Your task to perform on an android device: Clear the shopping cart on walmart. Search for macbook air on walmart, select the first entry, and add it to the cart. Image 0: 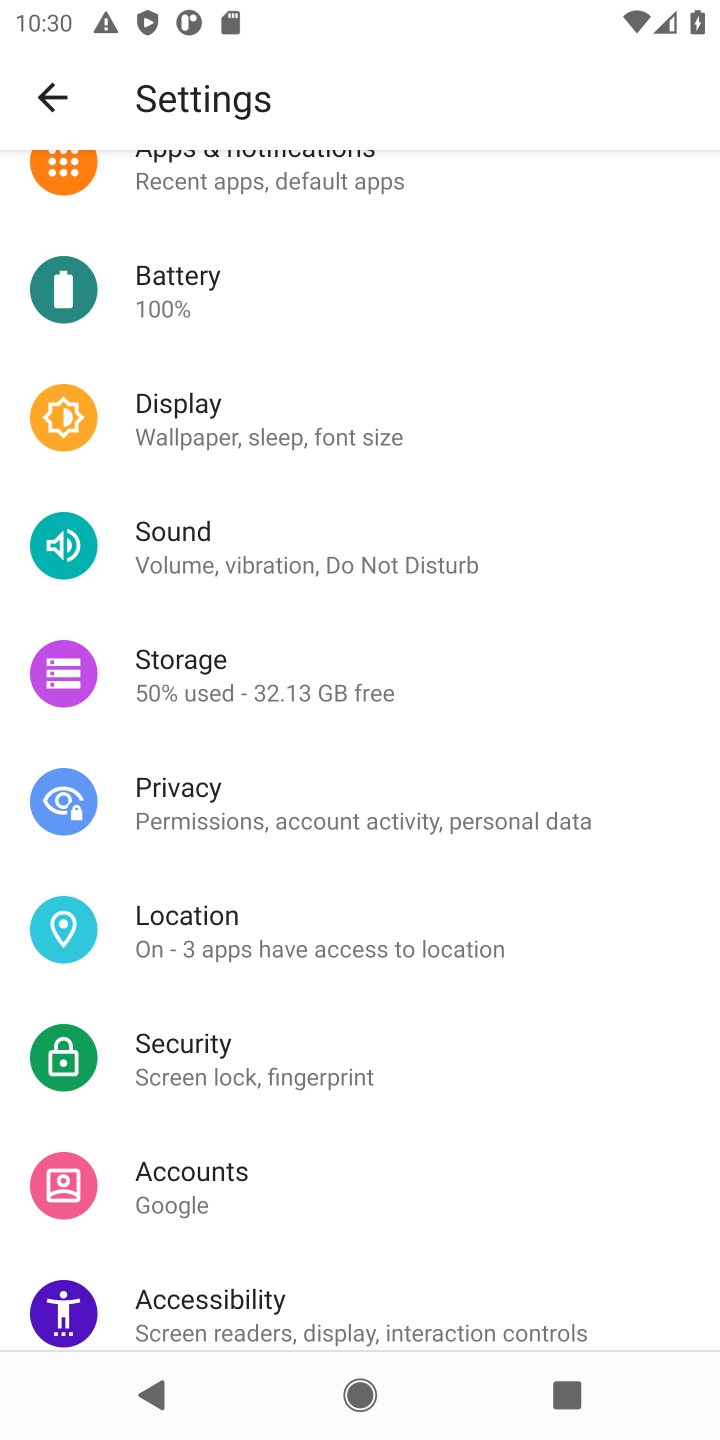
Step 0: press home button
Your task to perform on an android device: Clear the shopping cart on walmart. Search for macbook air on walmart, select the first entry, and add it to the cart. Image 1: 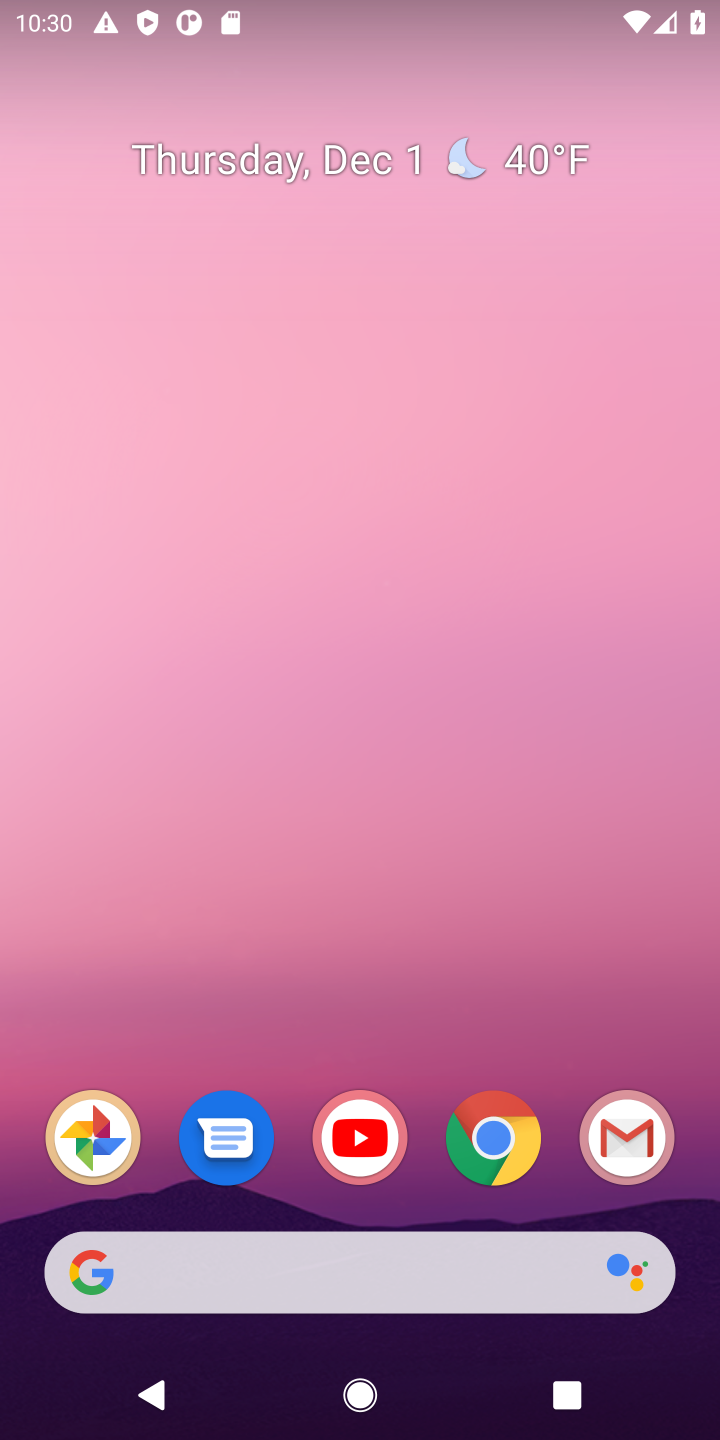
Step 1: drag from (399, 1241) to (384, 324)
Your task to perform on an android device: Clear the shopping cart on walmart. Search for macbook air on walmart, select the first entry, and add it to the cart. Image 2: 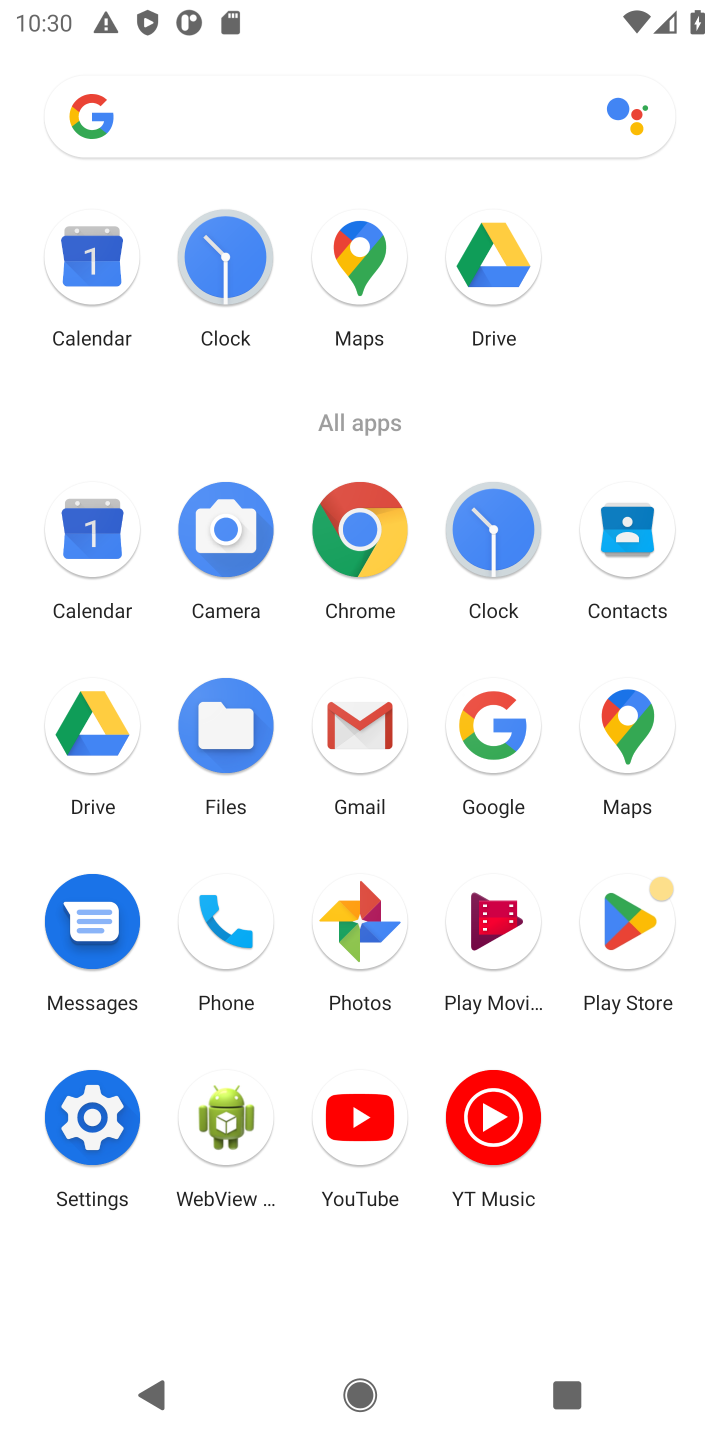
Step 2: click (480, 746)
Your task to perform on an android device: Clear the shopping cart on walmart. Search for macbook air on walmart, select the first entry, and add it to the cart. Image 3: 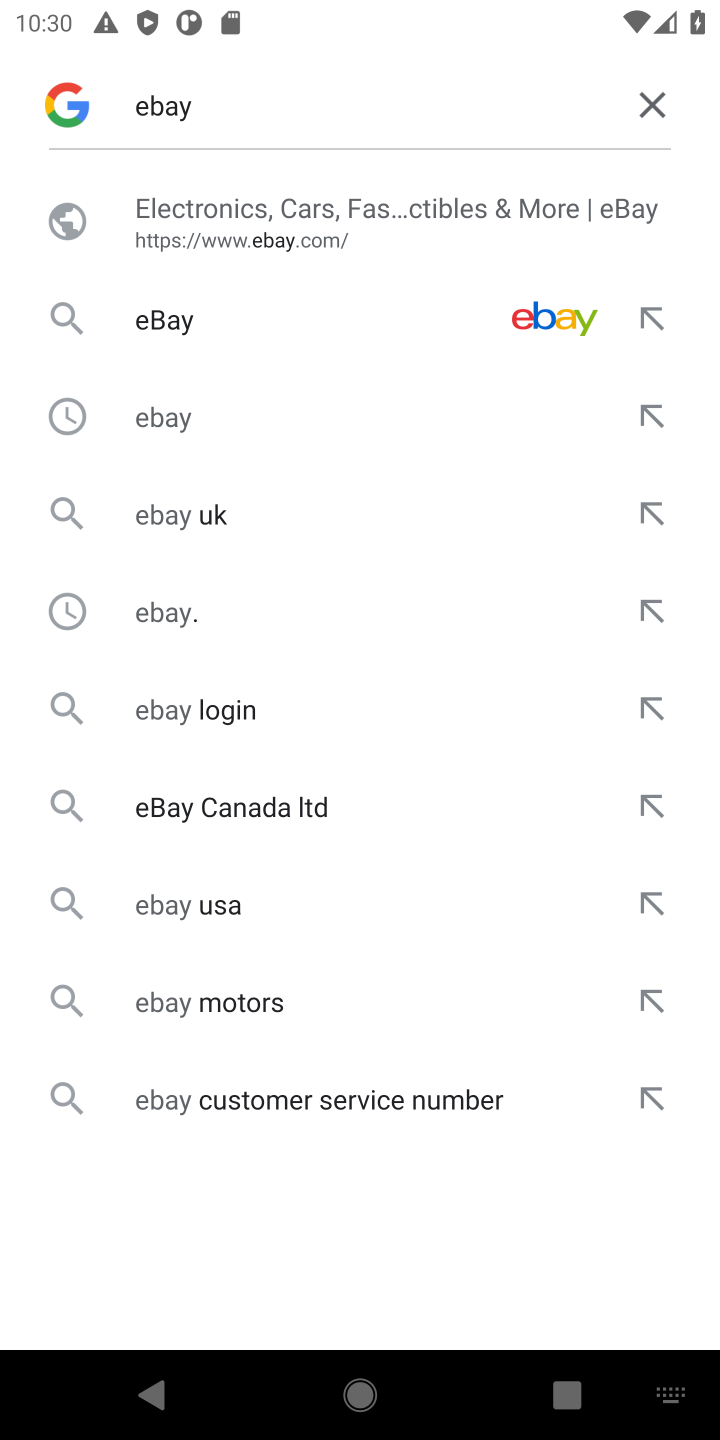
Step 3: click (655, 92)
Your task to perform on an android device: Clear the shopping cart on walmart. Search for macbook air on walmart, select the first entry, and add it to the cart. Image 4: 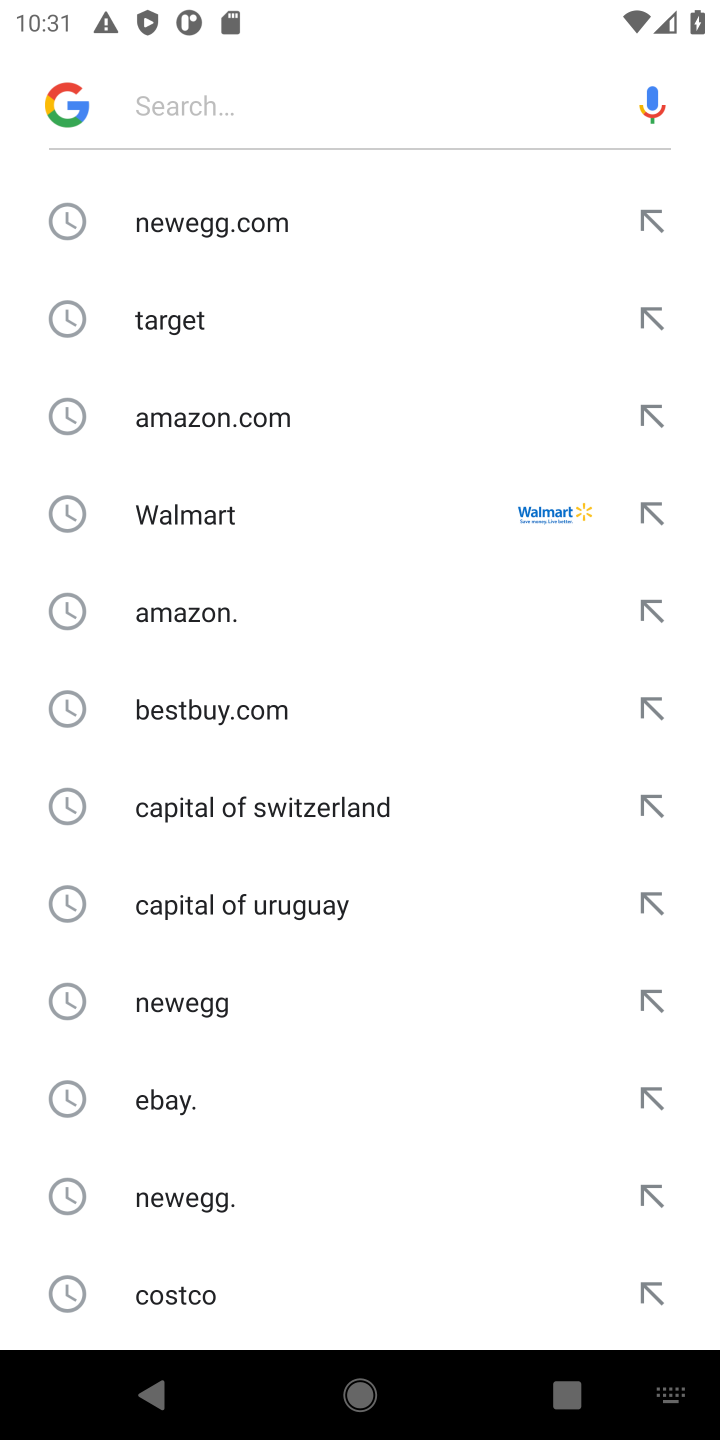
Step 4: type "walmart"
Your task to perform on an android device: Clear the shopping cart on walmart. Search for macbook air on walmart, select the first entry, and add it to the cart. Image 5: 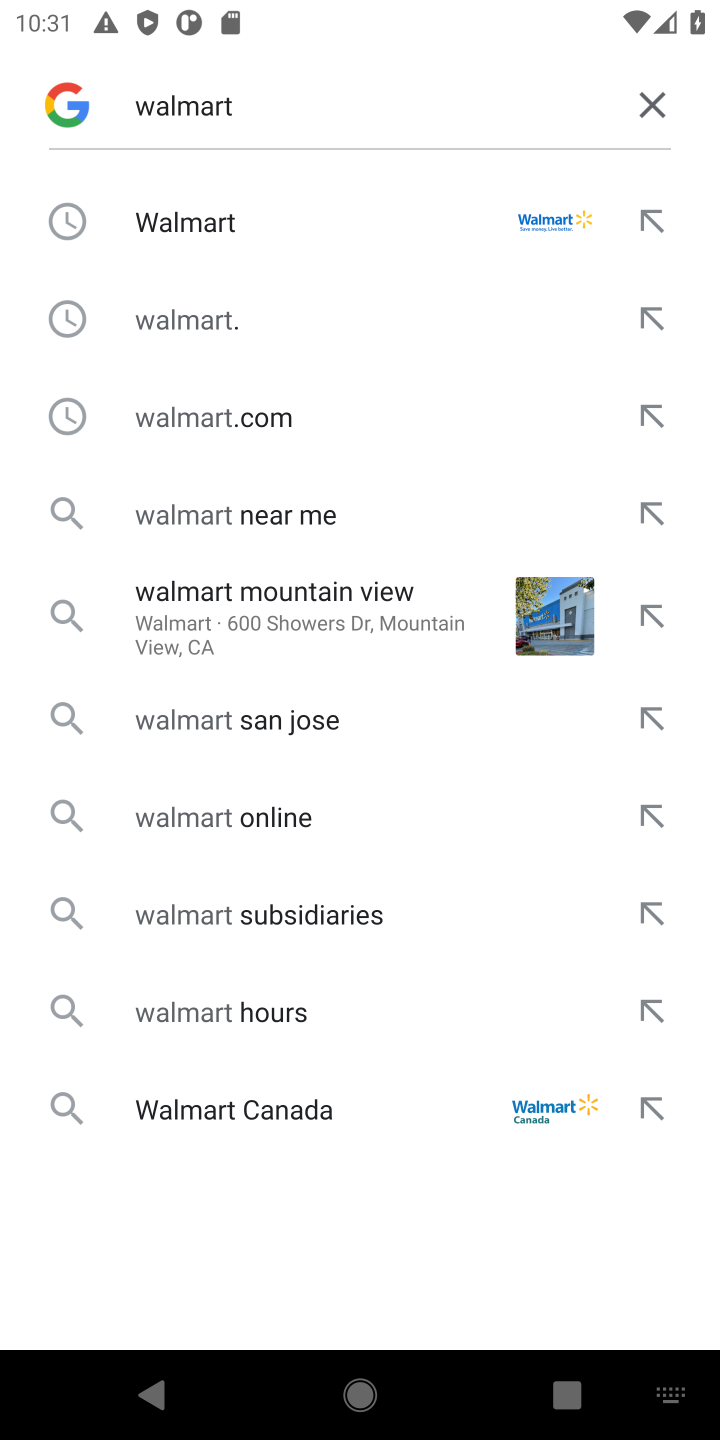
Step 5: click (289, 222)
Your task to perform on an android device: Clear the shopping cart on walmart. Search for macbook air on walmart, select the first entry, and add it to the cart. Image 6: 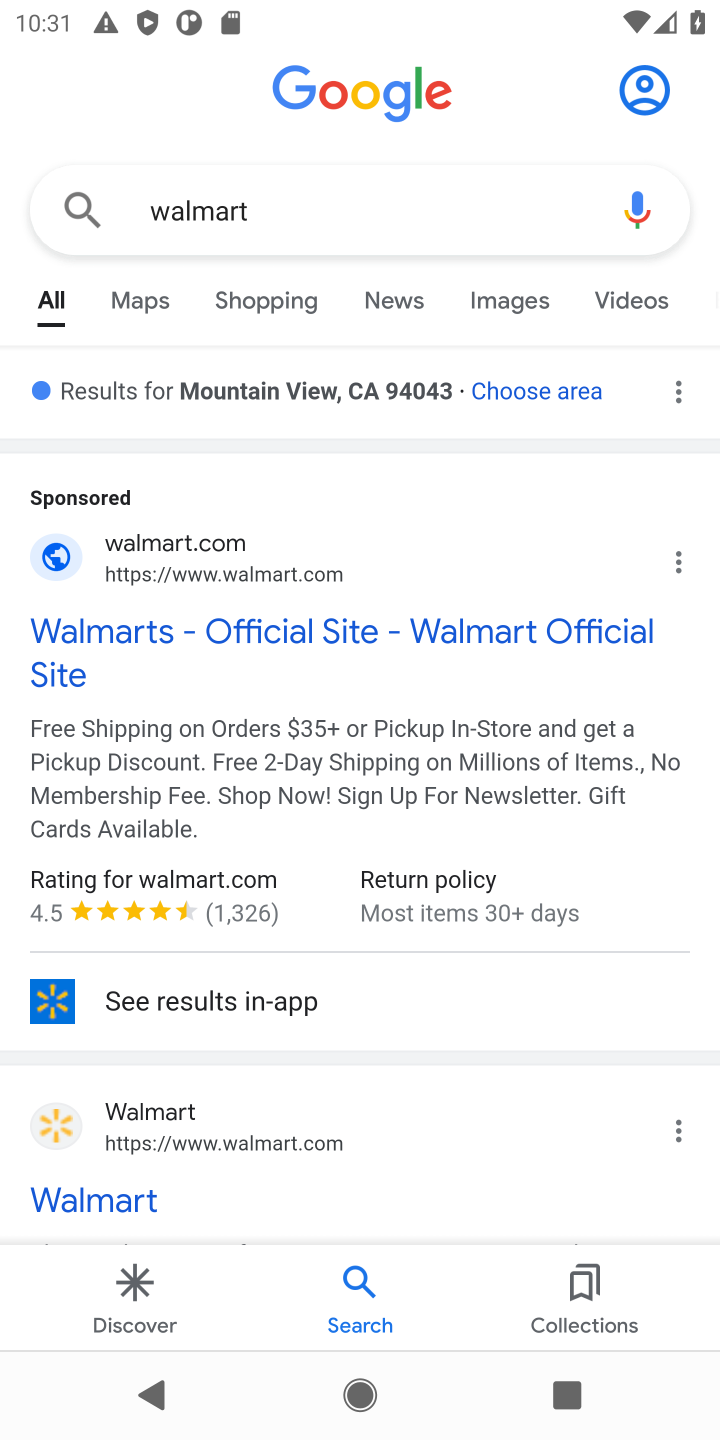
Step 6: click (195, 624)
Your task to perform on an android device: Clear the shopping cart on walmart. Search for macbook air on walmart, select the first entry, and add it to the cart. Image 7: 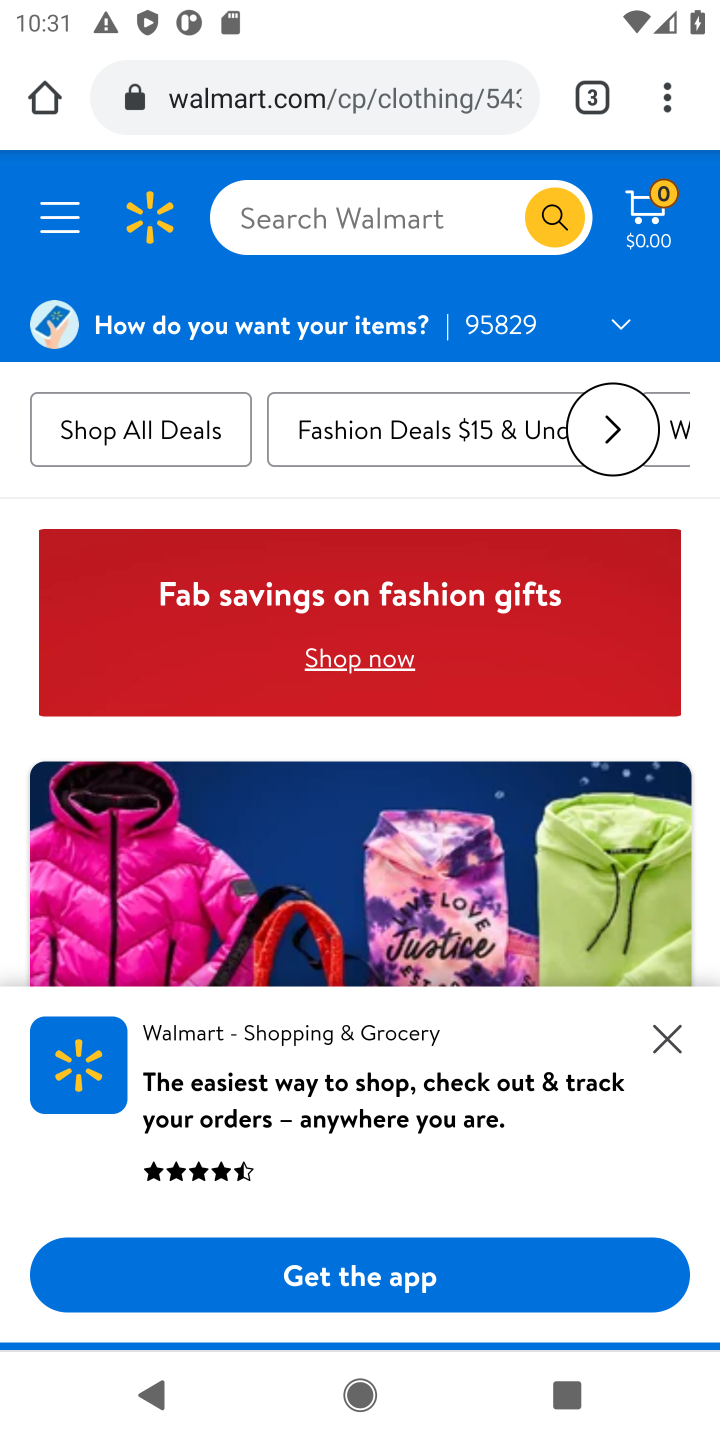
Step 7: click (657, 1032)
Your task to perform on an android device: Clear the shopping cart on walmart. Search for macbook air on walmart, select the first entry, and add it to the cart. Image 8: 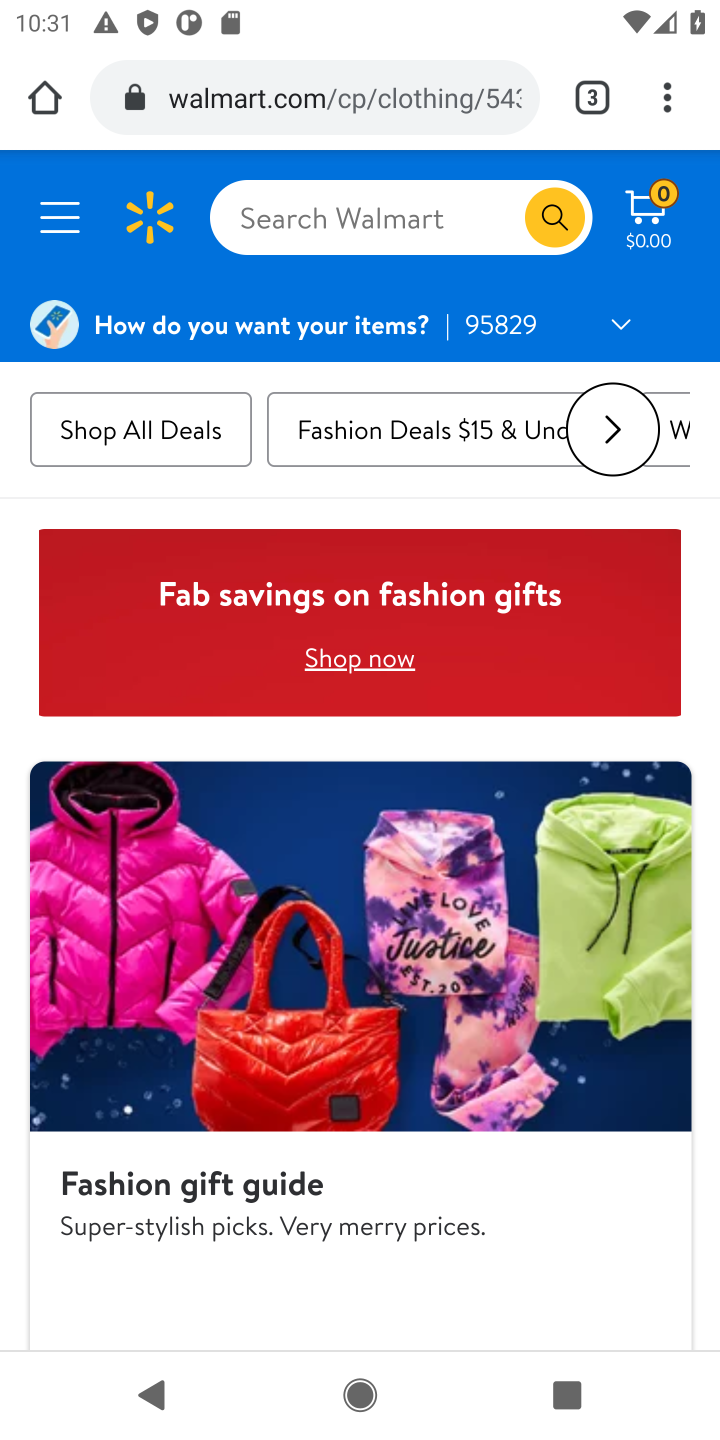
Step 8: drag from (482, 1027) to (490, 382)
Your task to perform on an android device: Clear the shopping cart on walmart. Search for macbook air on walmart, select the first entry, and add it to the cart. Image 9: 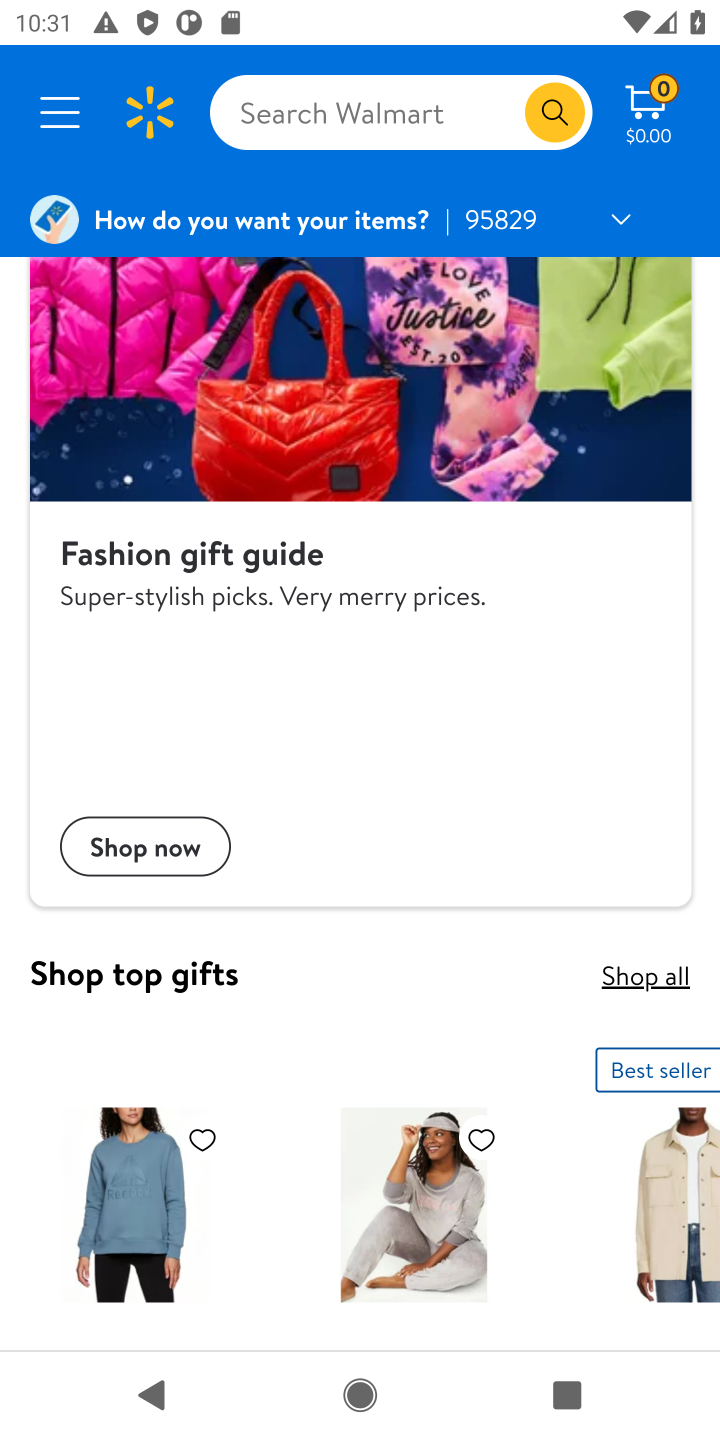
Step 9: click (433, 108)
Your task to perform on an android device: Clear the shopping cart on walmart. Search for macbook air on walmart, select the first entry, and add it to the cart. Image 10: 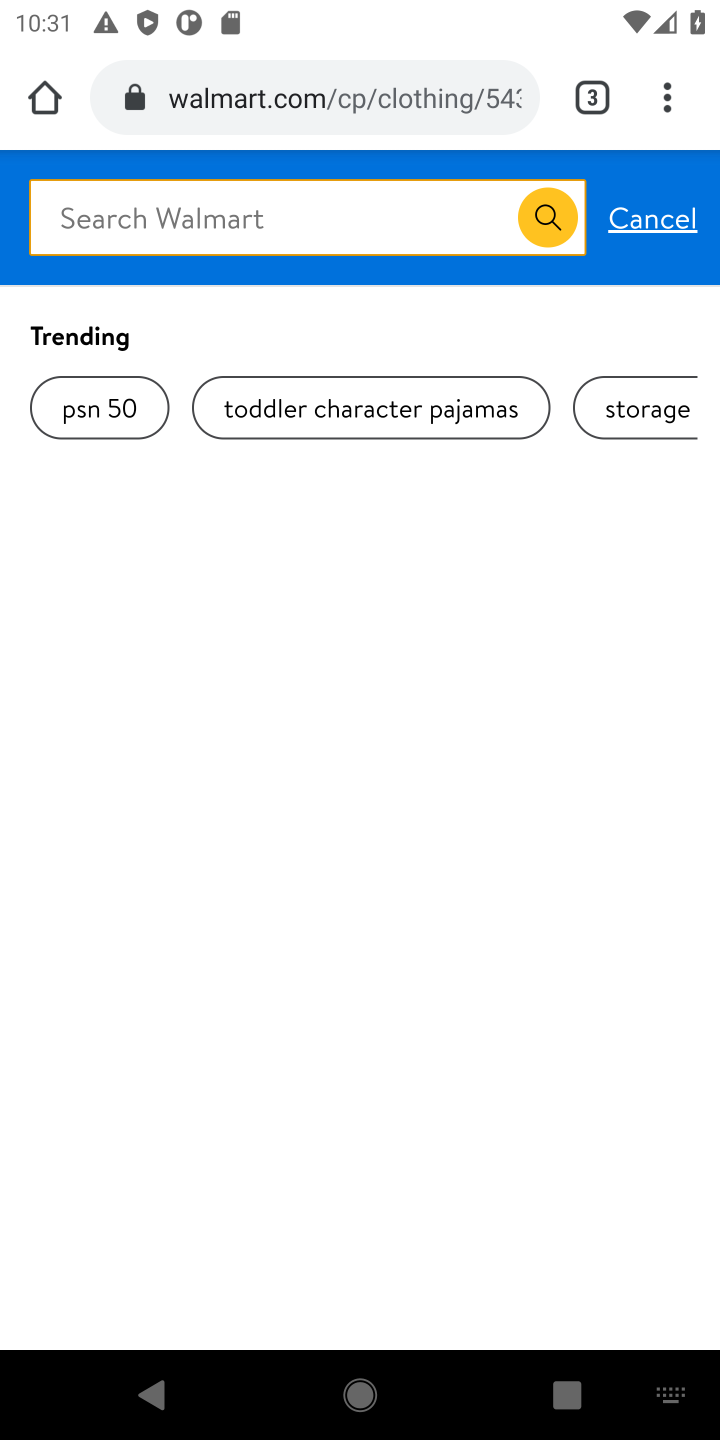
Step 10: type "macbook air"
Your task to perform on an android device: Clear the shopping cart on walmart. Search for macbook air on walmart, select the first entry, and add it to the cart. Image 11: 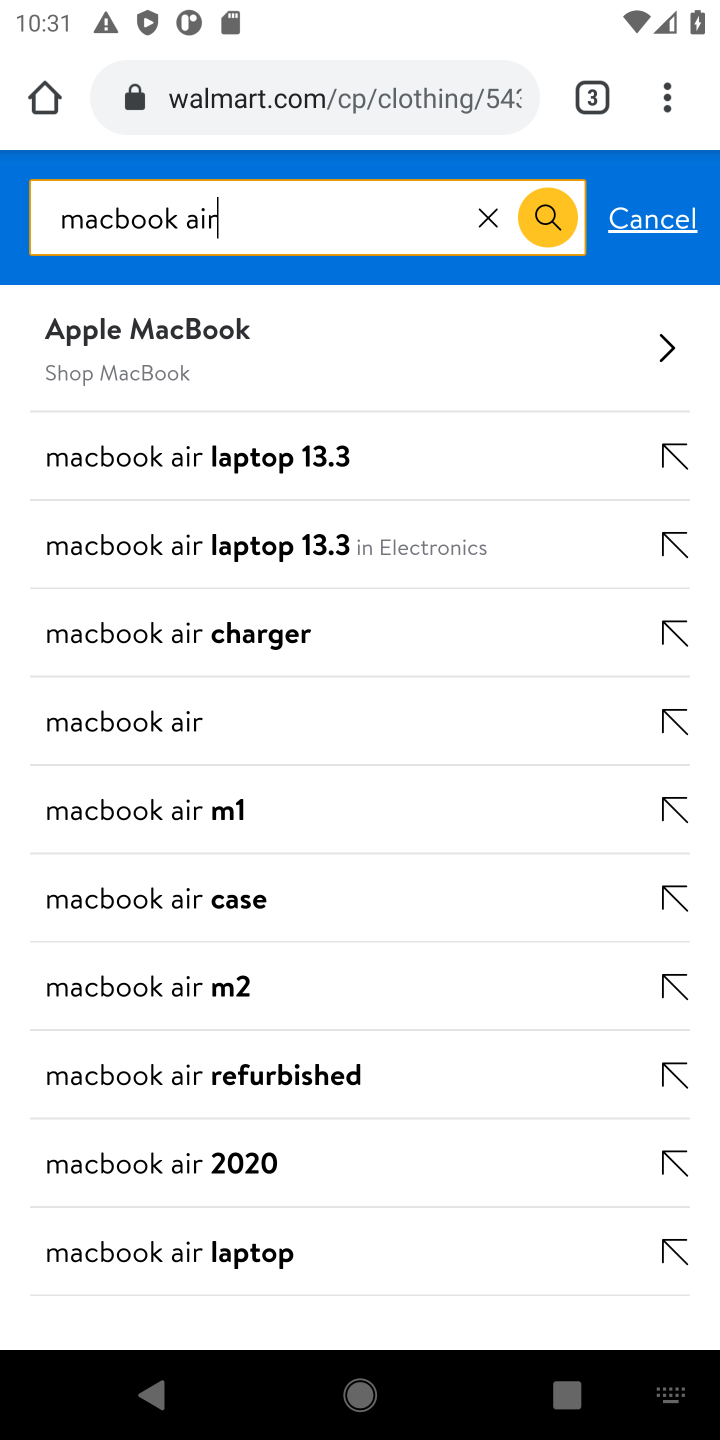
Step 11: click (214, 722)
Your task to perform on an android device: Clear the shopping cart on walmart. Search for macbook air on walmart, select the first entry, and add it to the cart. Image 12: 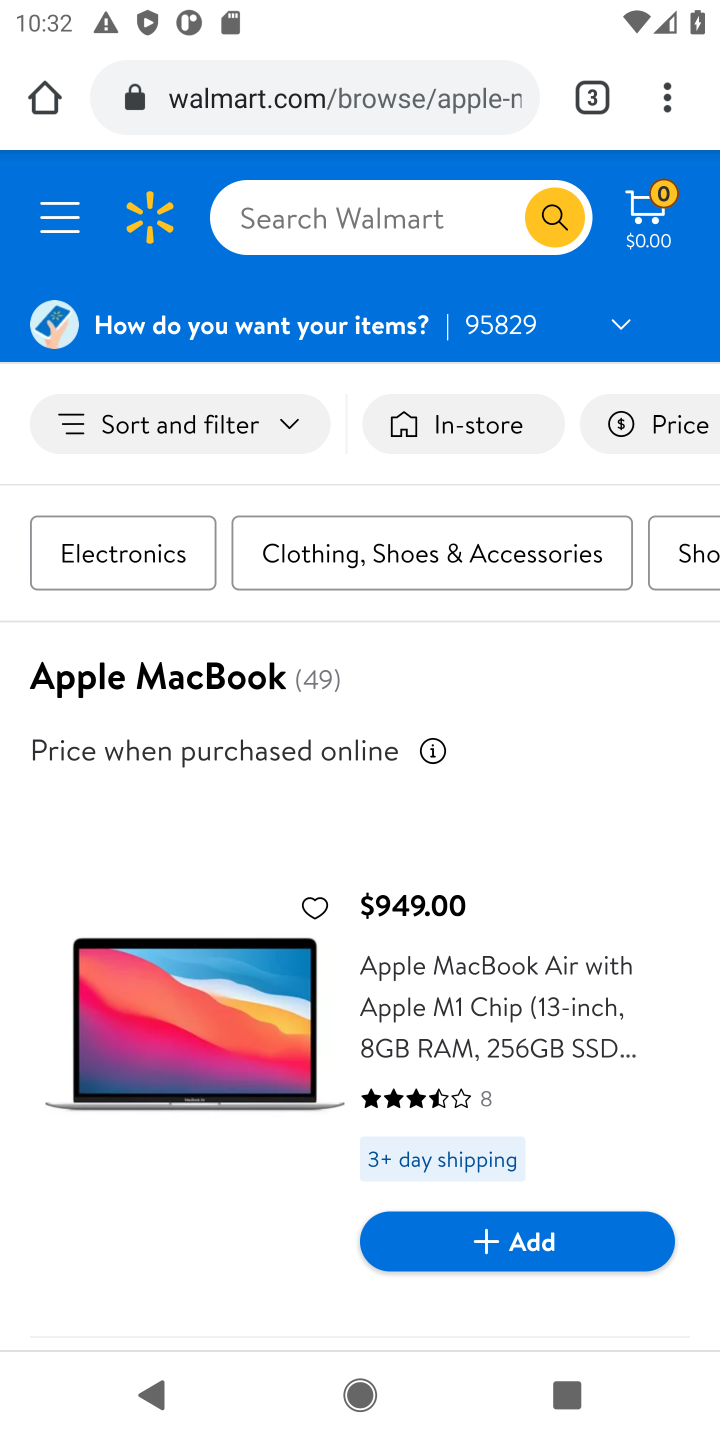
Step 12: click (541, 1240)
Your task to perform on an android device: Clear the shopping cart on walmart. Search for macbook air on walmart, select the first entry, and add it to the cart. Image 13: 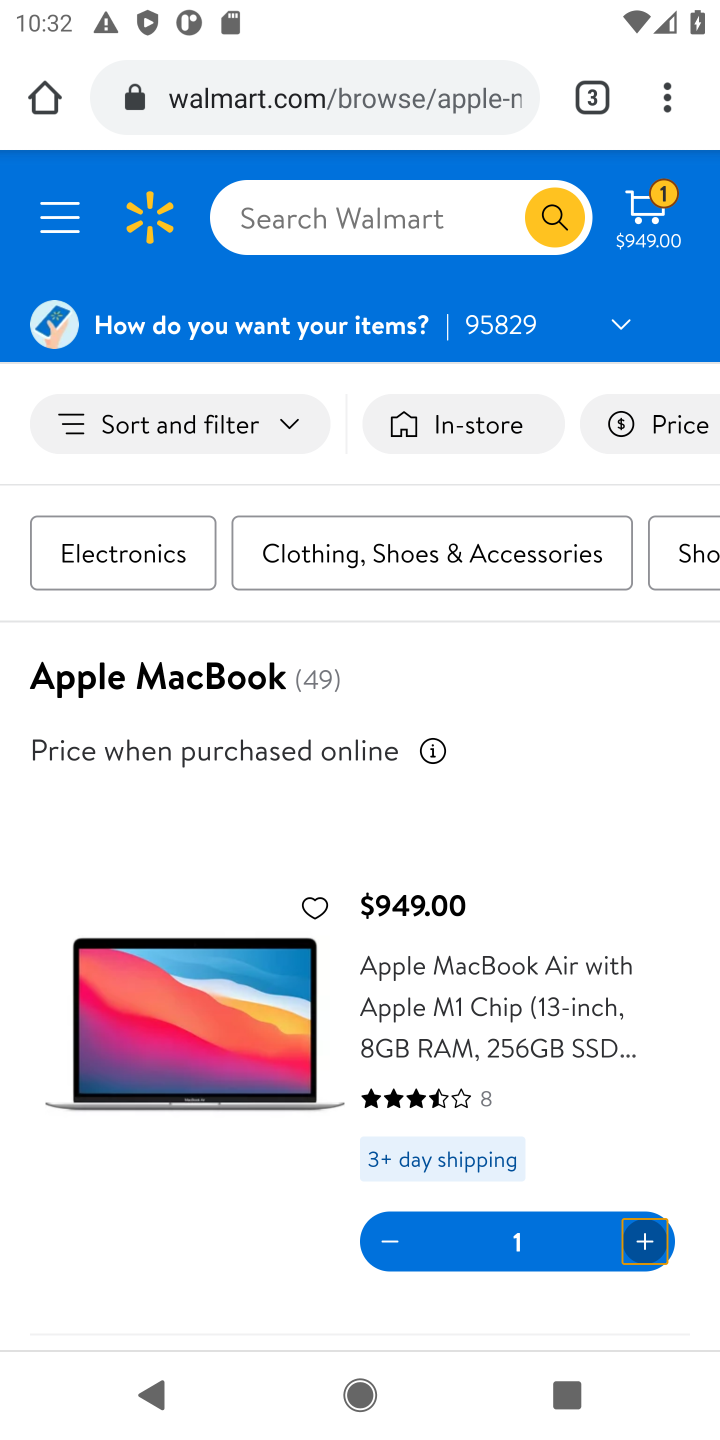
Step 13: task complete